Your task to perform on an android device: Show me recent news Image 0: 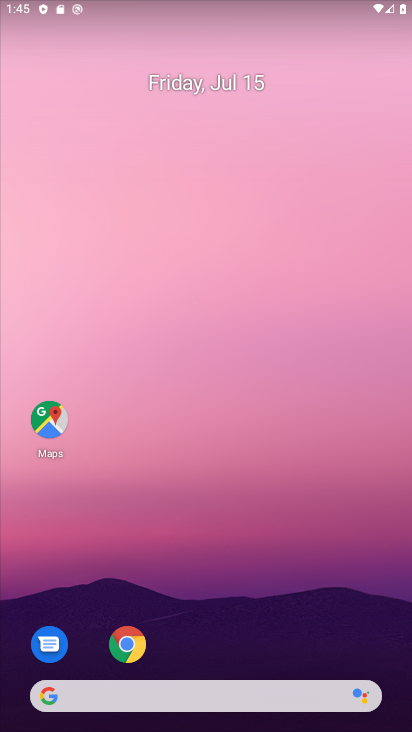
Step 0: click (102, 698)
Your task to perform on an android device: Show me recent news Image 1: 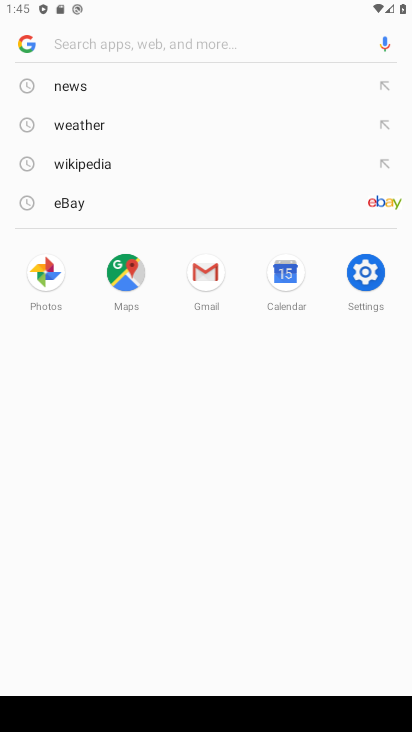
Step 1: type "recent news"
Your task to perform on an android device: Show me recent news Image 2: 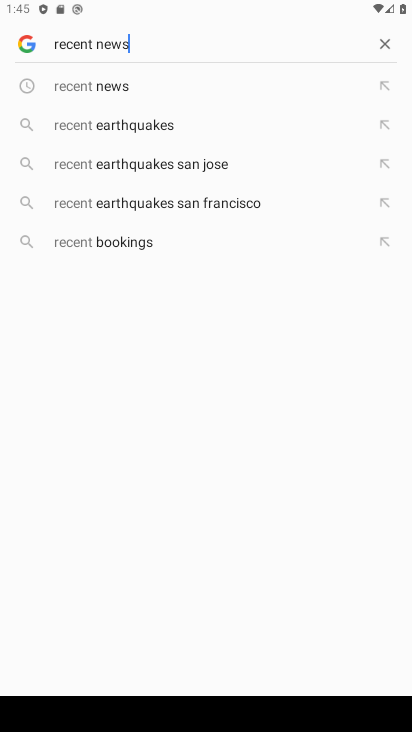
Step 2: type ""
Your task to perform on an android device: Show me recent news Image 3: 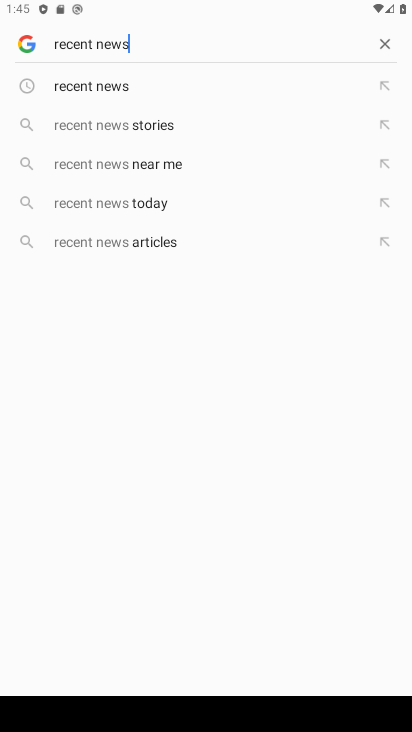
Step 3: click (105, 98)
Your task to perform on an android device: Show me recent news Image 4: 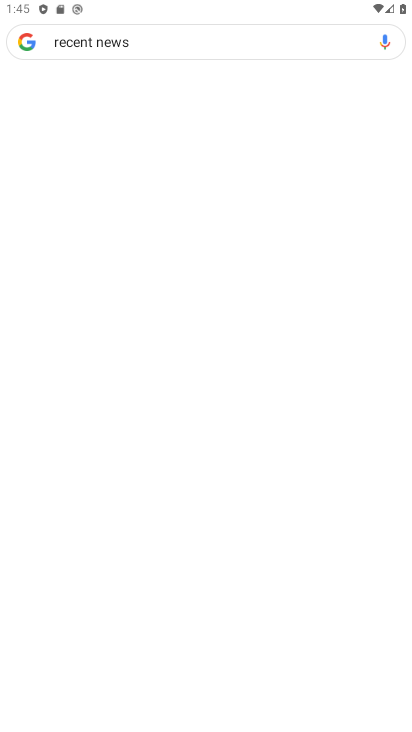
Step 4: click (102, 92)
Your task to perform on an android device: Show me recent news Image 5: 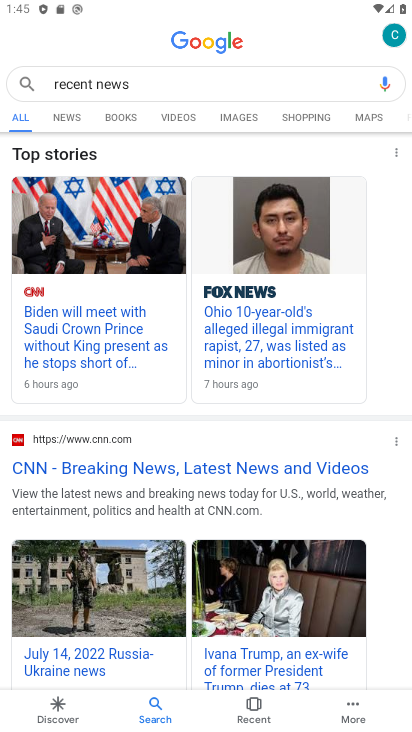
Step 5: task complete